Your task to perform on an android device: find which apps use the phone's location Image 0: 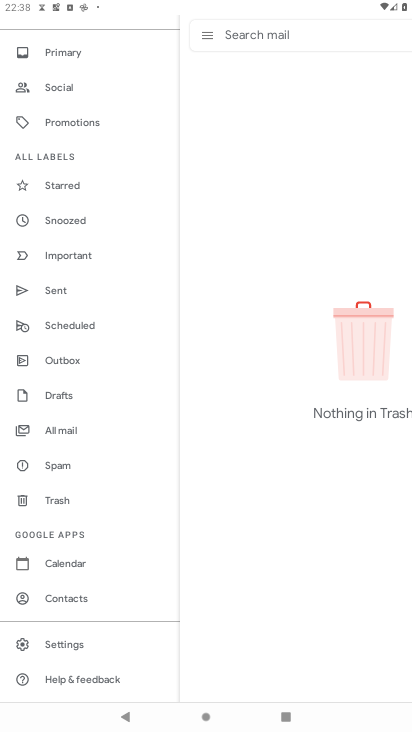
Step 0: press home button
Your task to perform on an android device: find which apps use the phone's location Image 1: 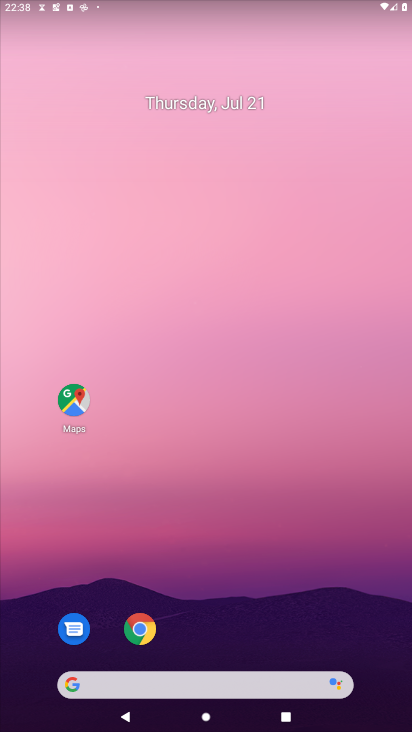
Step 1: drag from (297, 602) to (231, 102)
Your task to perform on an android device: find which apps use the phone's location Image 2: 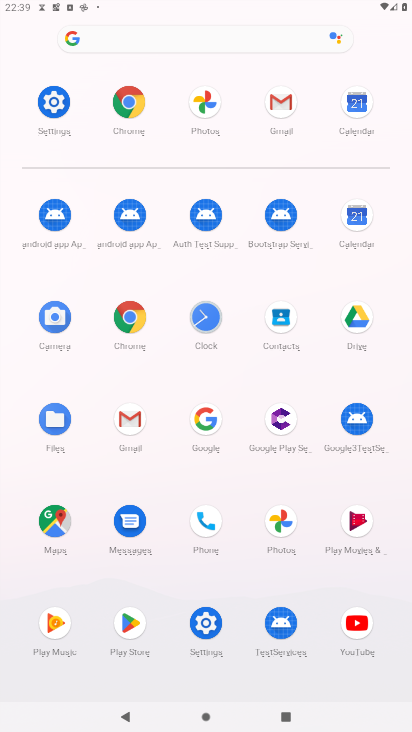
Step 2: click (194, 636)
Your task to perform on an android device: find which apps use the phone's location Image 3: 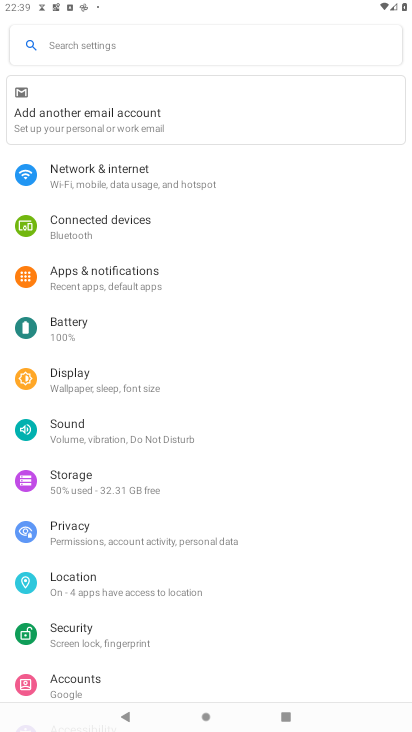
Step 3: click (122, 589)
Your task to perform on an android device: find which apps use the phone's location Image 4: 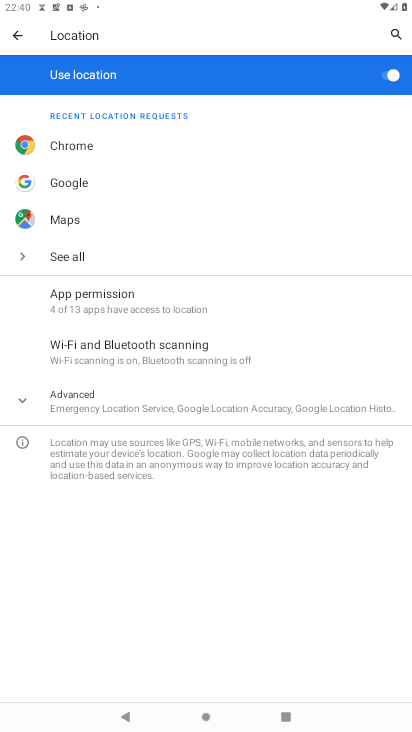
Step 4: click (124, 309)
Your task to perform on an android device: find which apps use the phone's location Image 5: 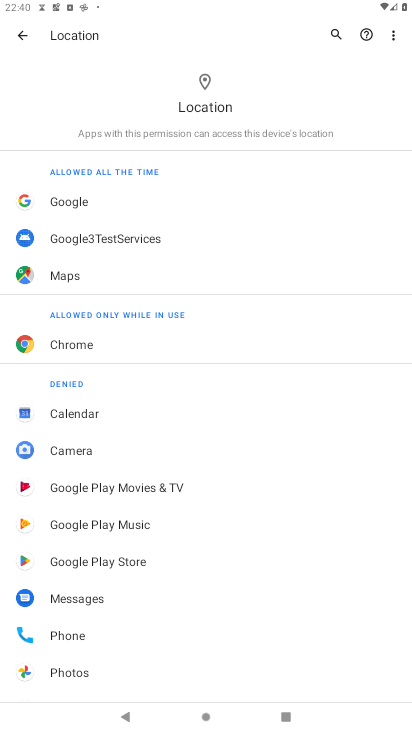
Step 5: task complete